Your task to perform on an android device: open app "ColorNote Notepad Notes" (install if not already installed) and go to login screen Image 0: 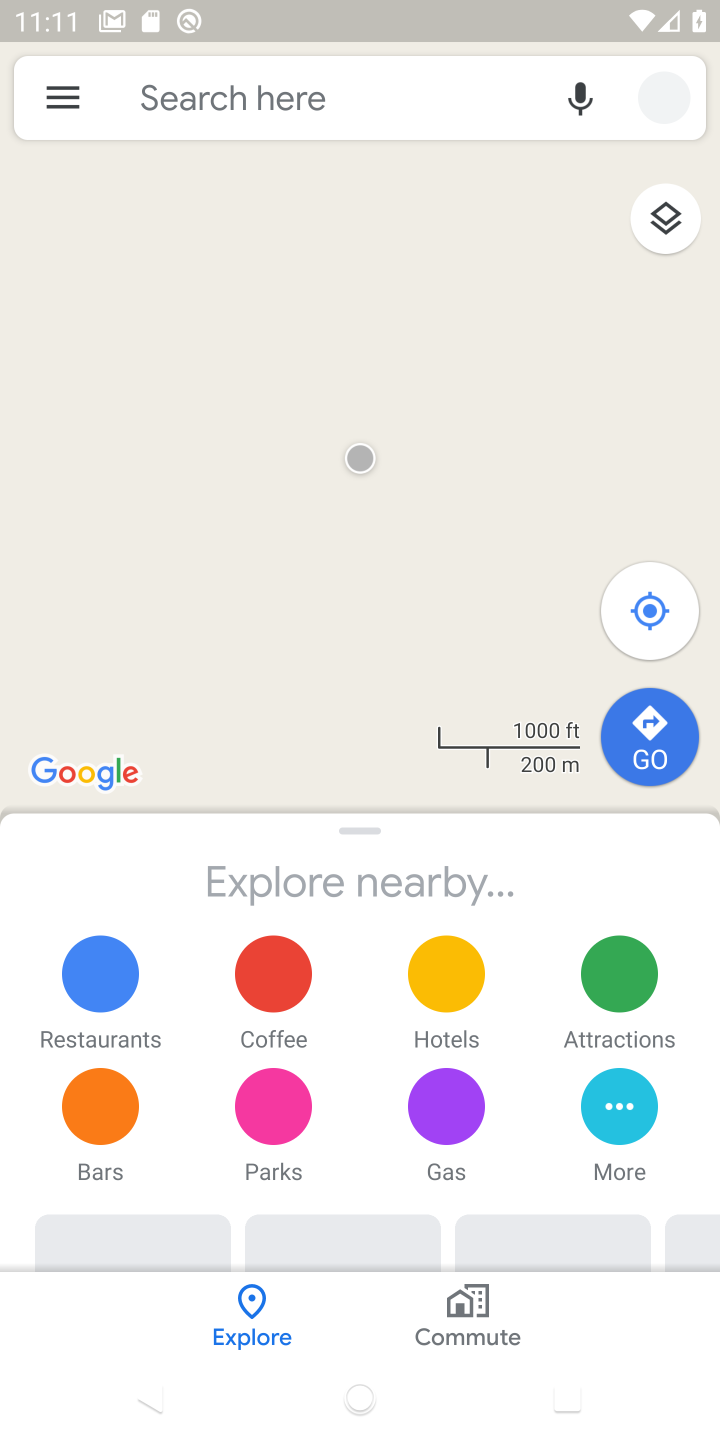
Step 0: press home button
Your task to perform on an android device: open app "ColorNote Notepad Notes" (install if not already installed) and go to login screen Image 1: 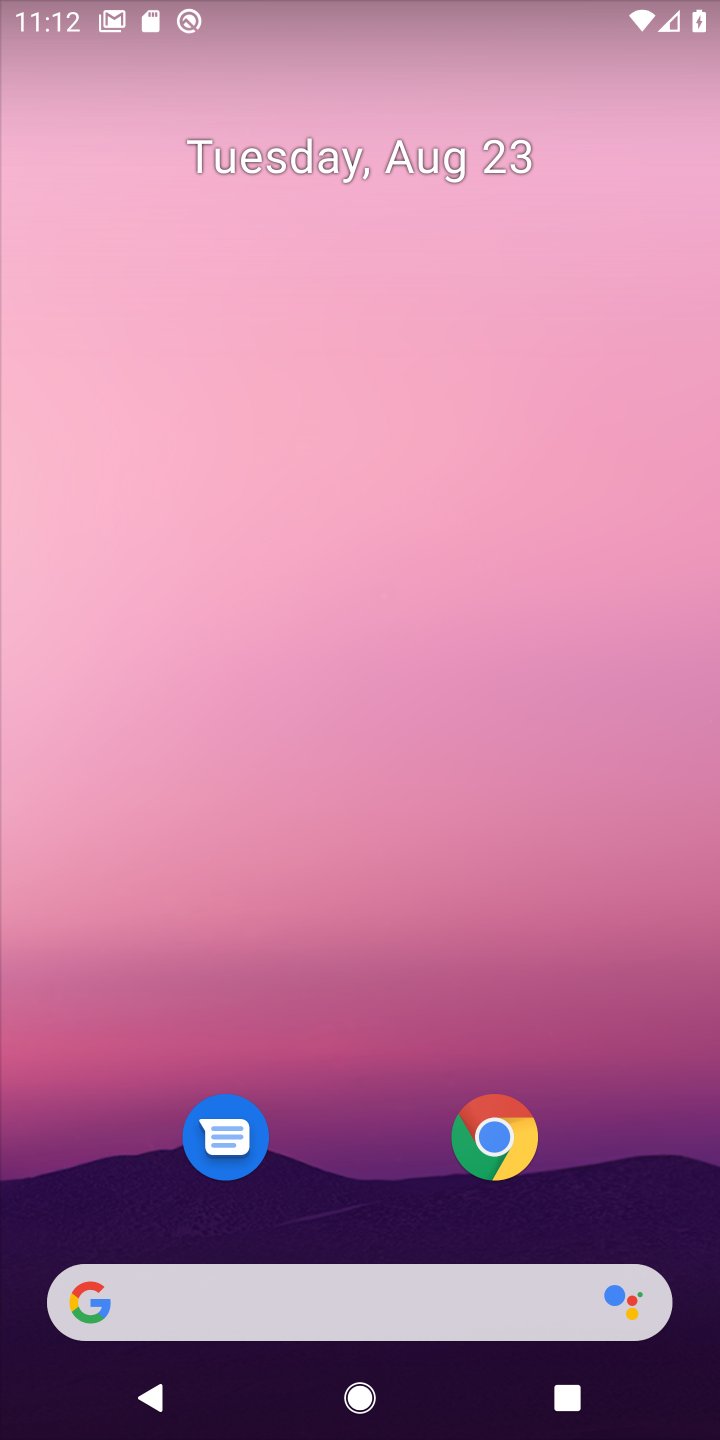
Step 1: drag from (310, 1108) to (347, 31)
Your task to perform on an android device: open app "ColorNote Notepad Notes" (install if not already installed) and go to login screen Image 2: 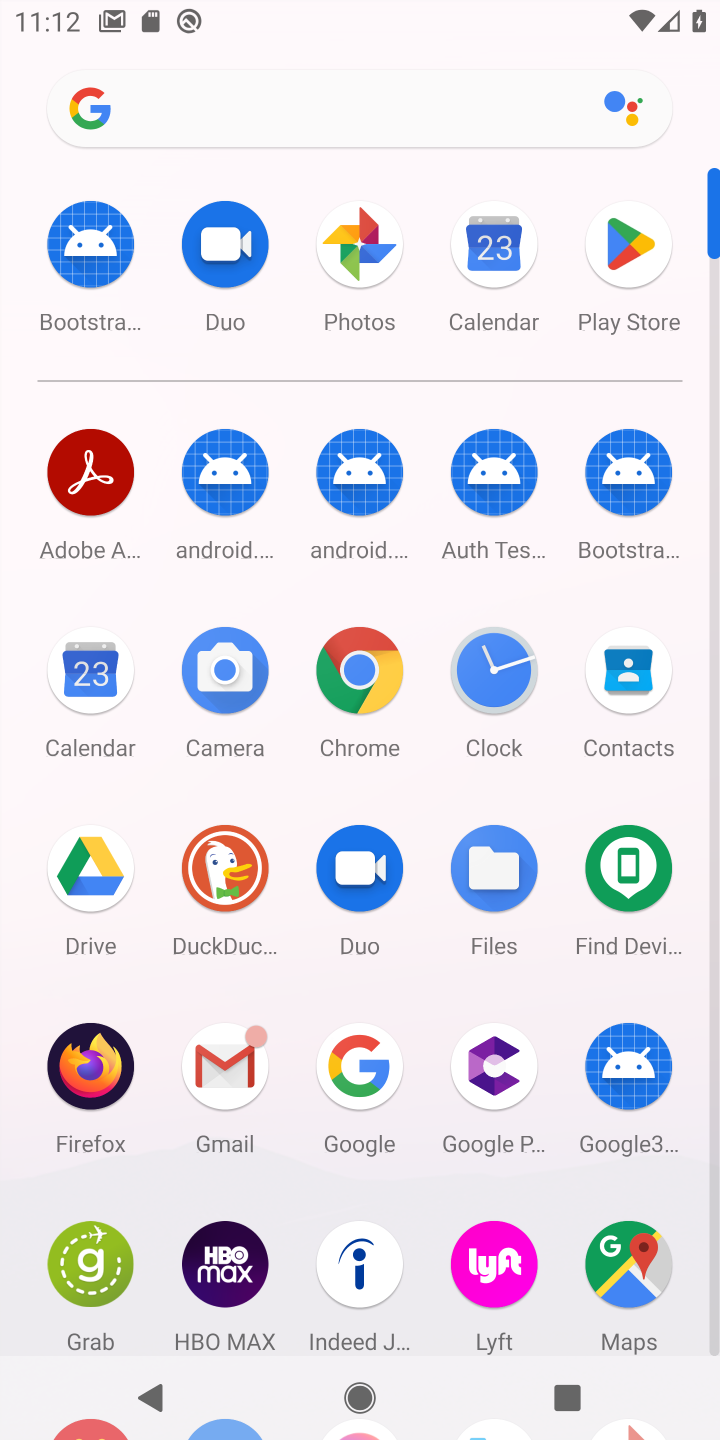
Step 2: click (634, 266)
Your task to perform on an android device: open app "ColorNote Notepad Notes" (install if not already installed) and go to login screen Image 3: 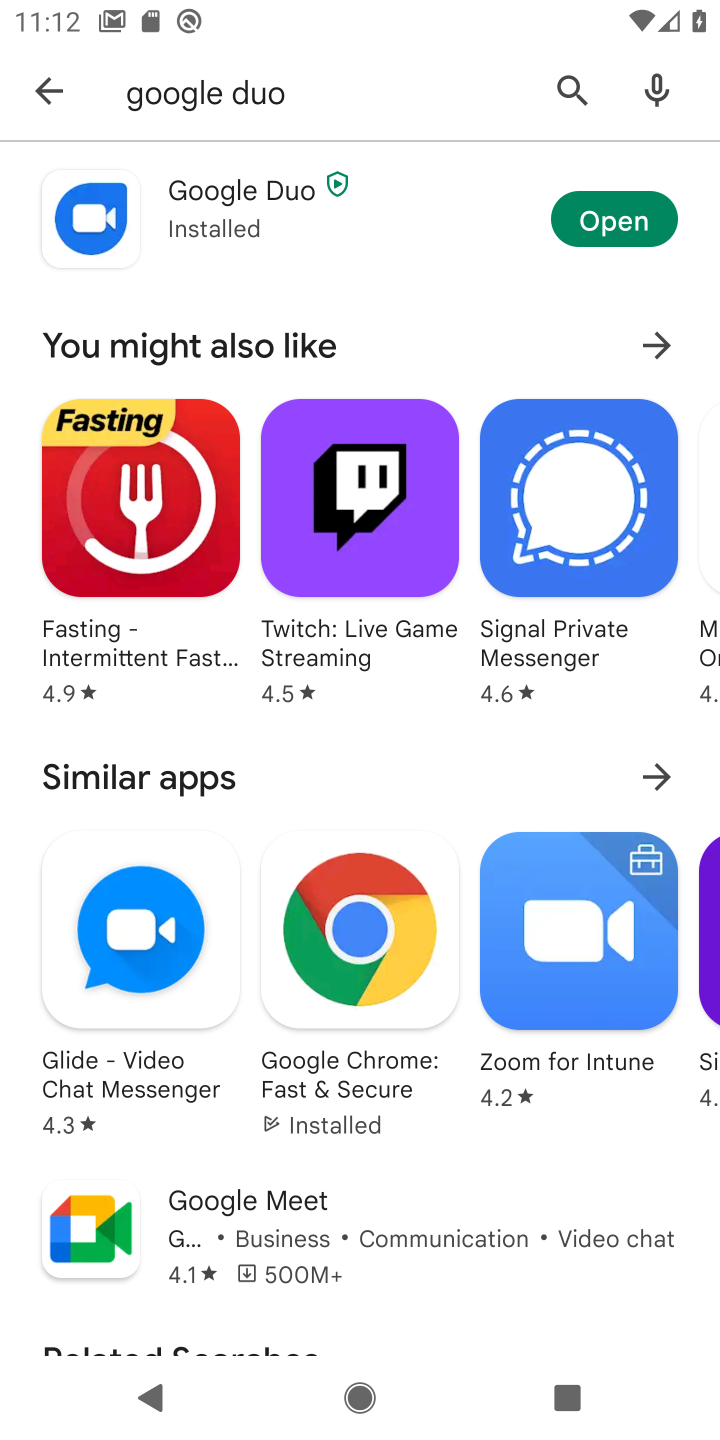
Step 3: click (326, 111)
Your task to perform on an android device: open app "ColorNote Notepad Notes" (install if not already installed) and go to login screen Image 4: 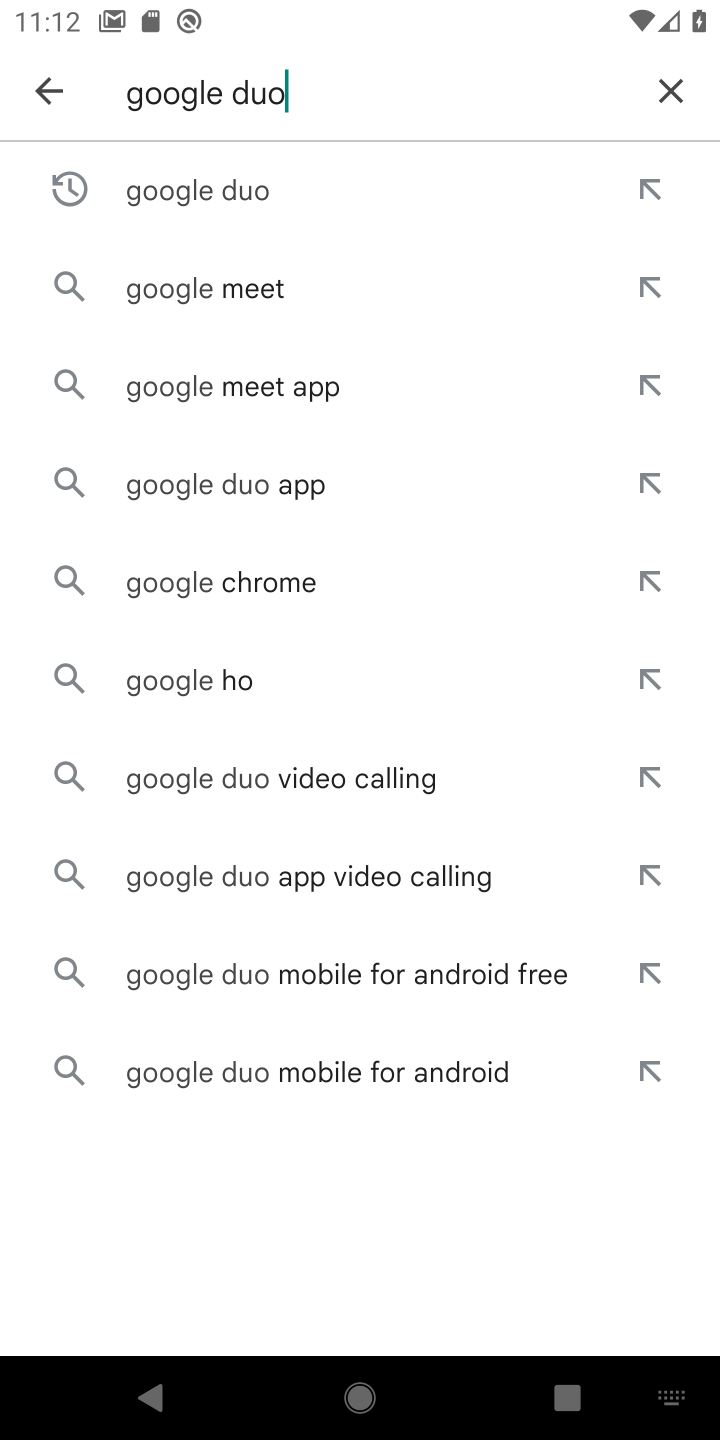
Step 4: click (656, 80)
Your task to perform on an android device: open app "ColorNote Notepad Notes" (install if not already installed) and go to login screen Image 5: 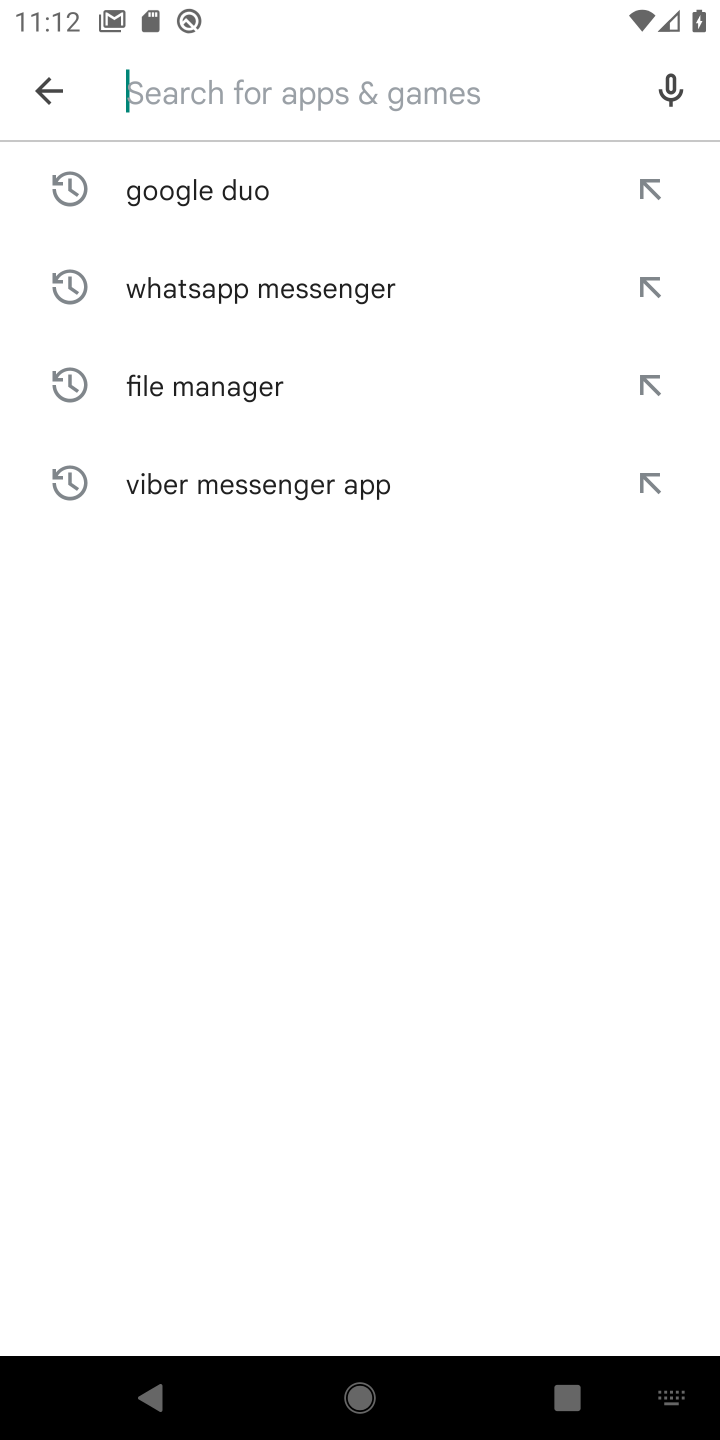
Step 5: type "colornote notepad notes"
Your task to perform on an android device: open app "ColorNote Notepad Notes" (install if not already installed) and go to login screen Image 6: 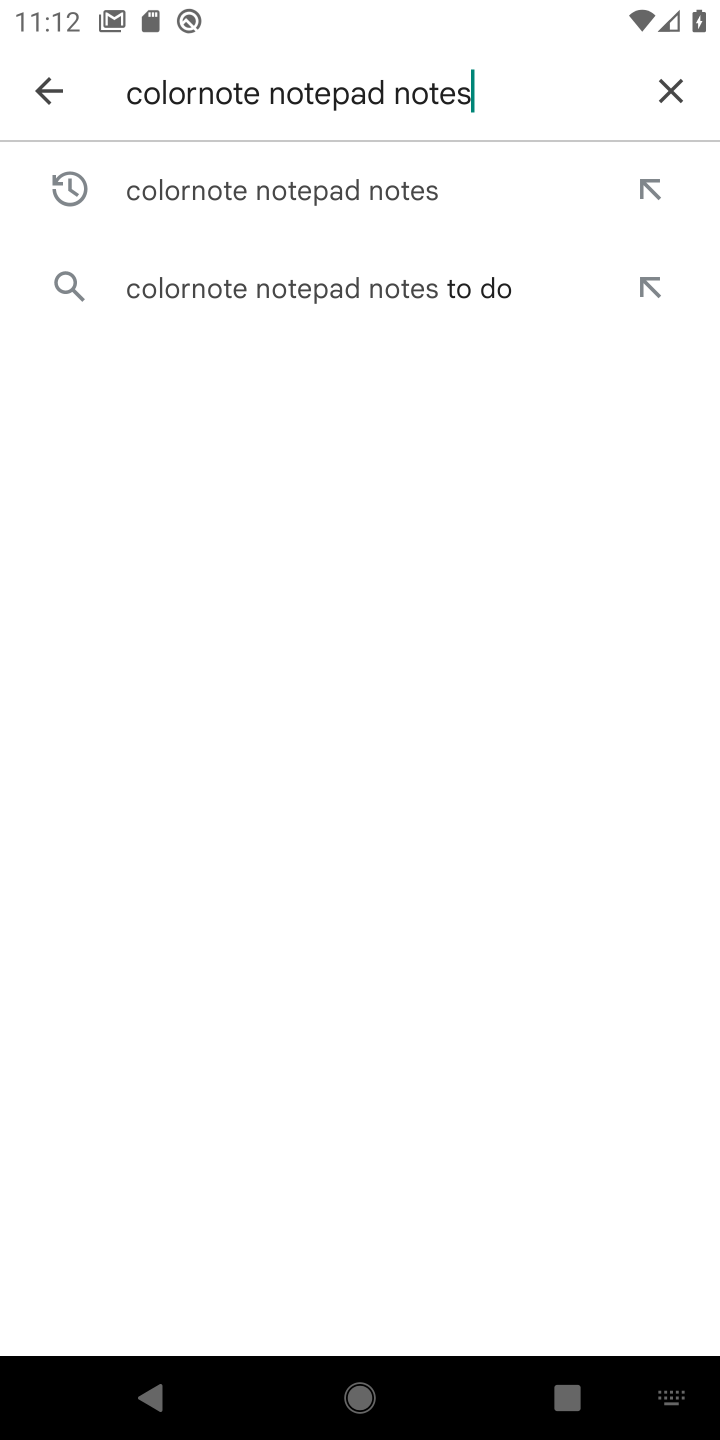
Step 6: click (294, 204)
Your task to perform on an android device: open app "ColorNote Notepad Notes" (install if not already installed) and go to login screen Image 7: 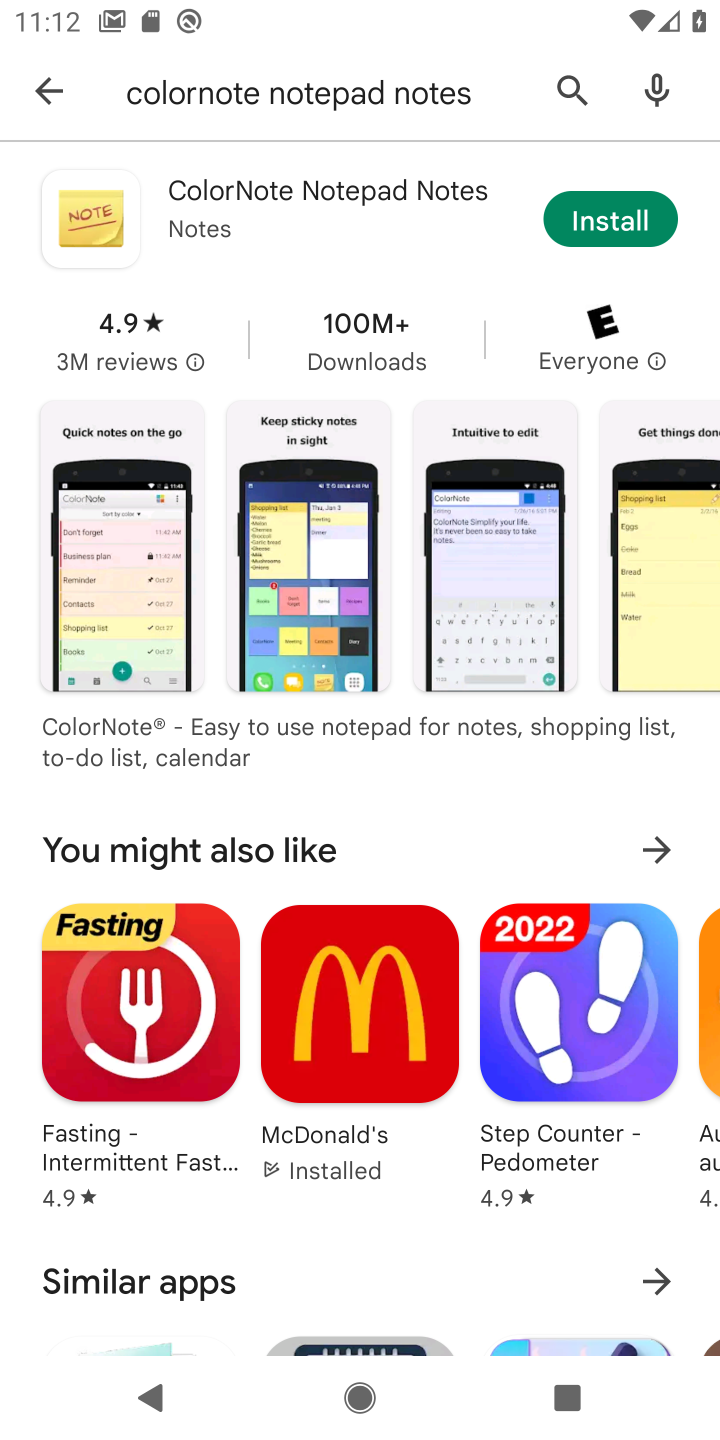
Step 7: click (622, 221)
Your task to perform on an android device: open app "ColorNote Notepad Notes" (install if not already installed) and go to login screen Image 8: 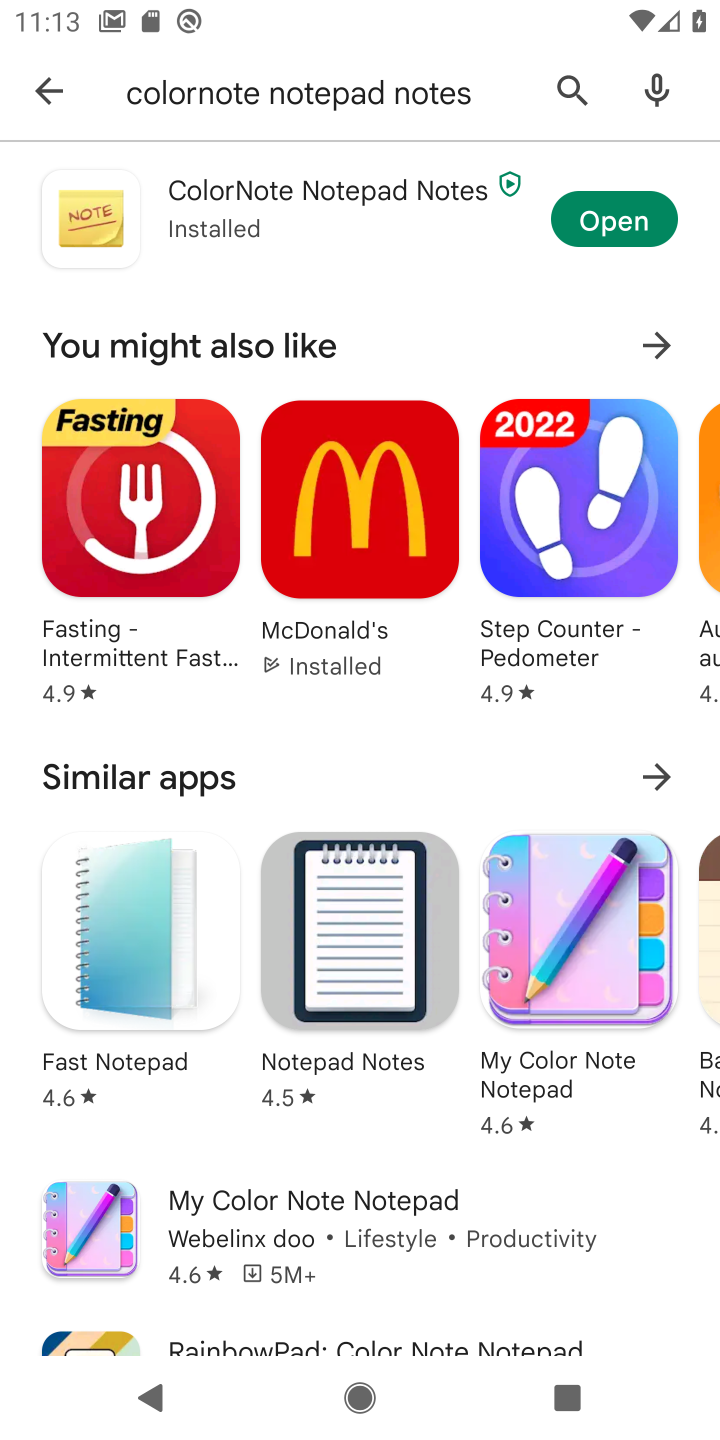
Step 8: click (629, 227)
Your task to perform on an android device: open app "ColorNote Notepad Notes" (install if not already installed) and go to login screen Image 9: 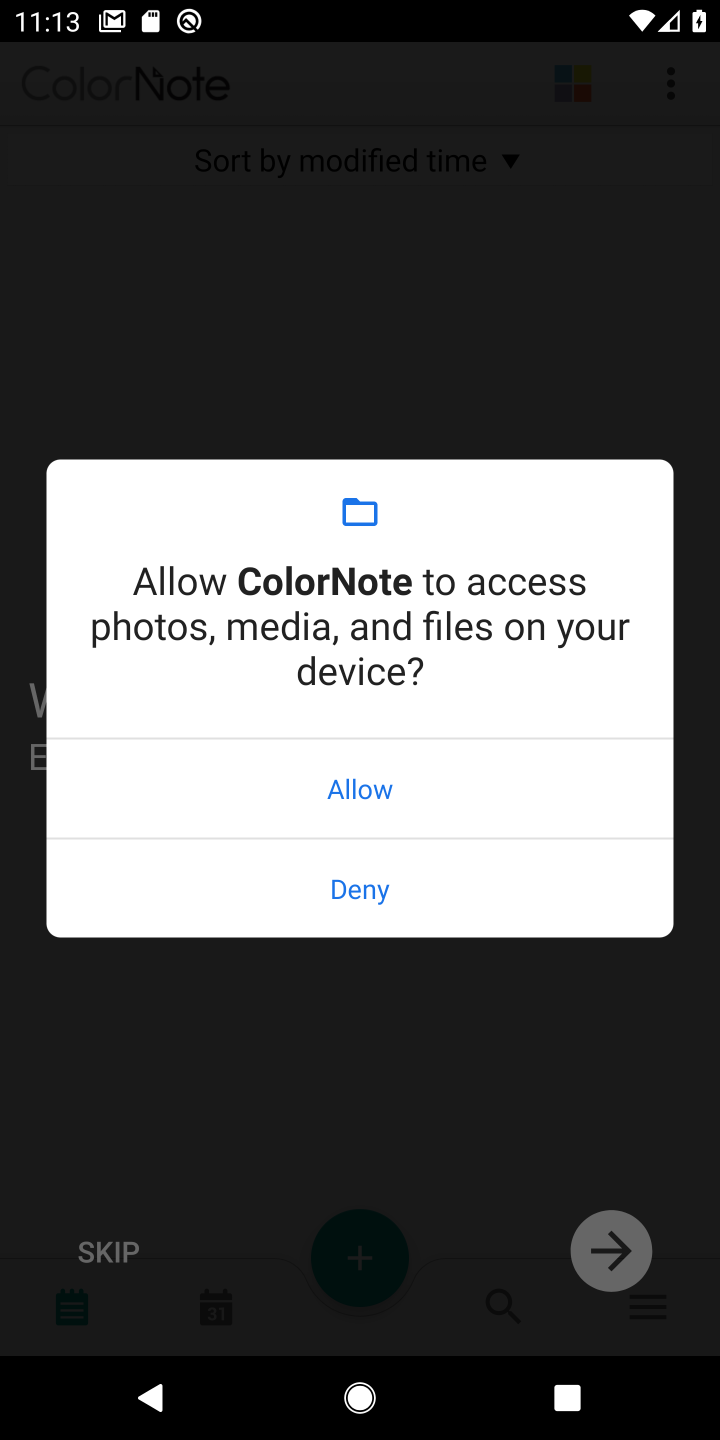
Step 9: click (394, 782)
Your task to perform on an android device: open app "ColorNote Notepad Notes" (install if not already installed) and go to login screen Image 10: 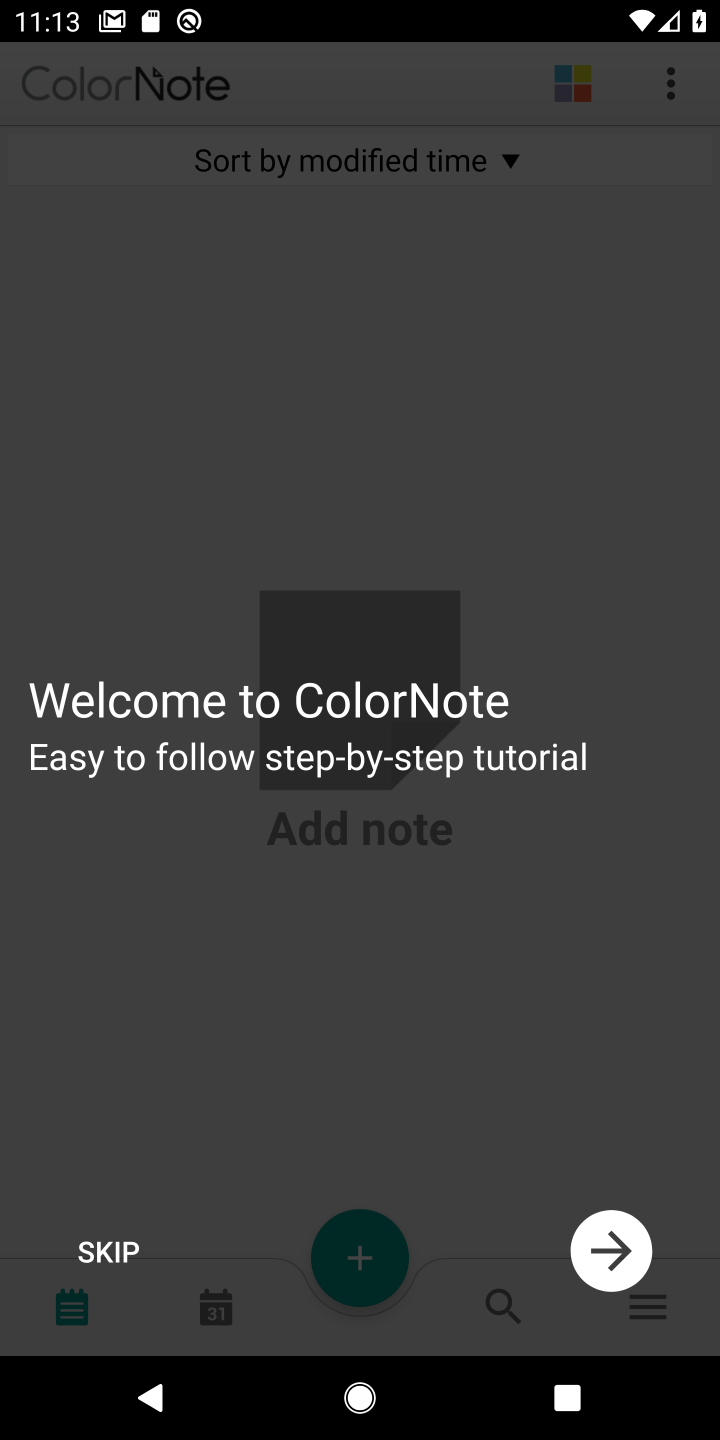
Step 10: click (107, 1244)
Your task to perform on an android device: open app "ColorNote Notepad Notes" (install if not already installed) and go to login screen Image 11: 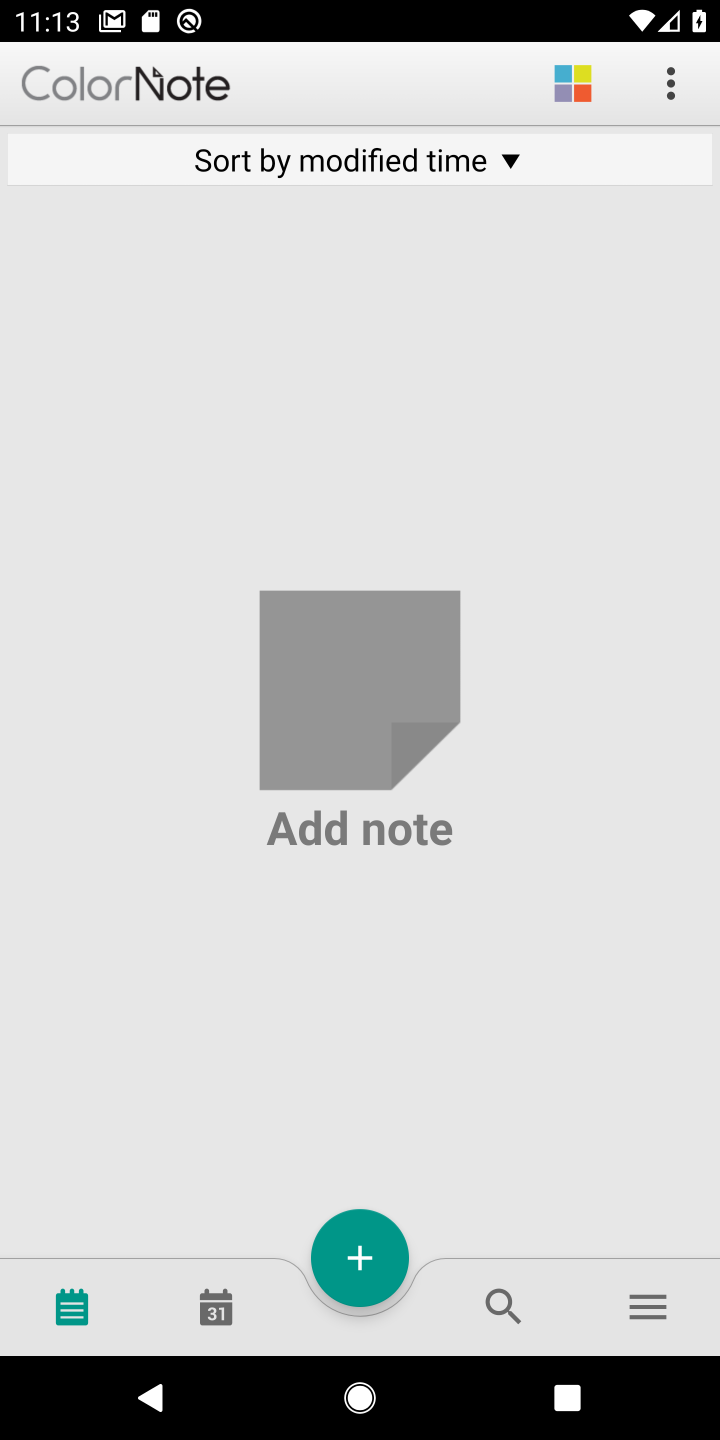
Step 11: task complete